Your task to perform on an android device: refresh tabs in the chrome app Image 0: 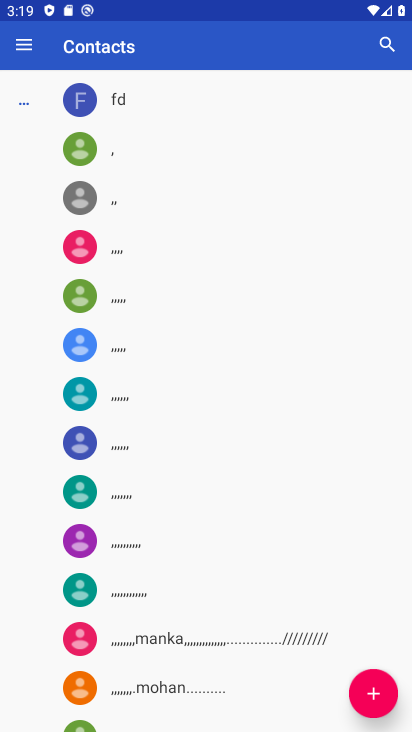
Step 0: press back button
Your task to perform on an android device: refresh tabs in the chrome app Image 1: 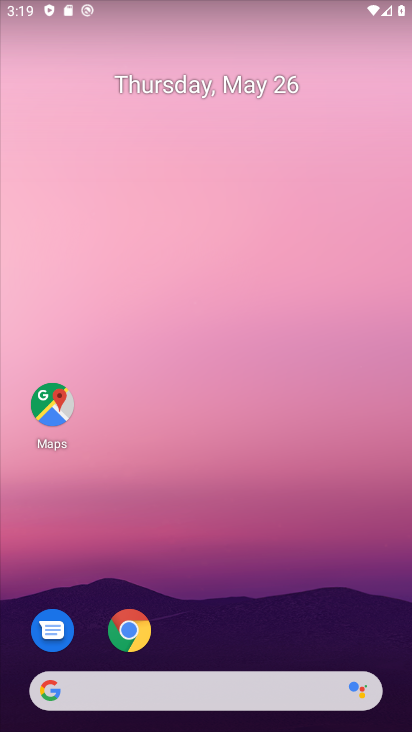
Step 1: click (130, 629)
Your task to perform on an android device: refresh tabs in the chrome app Image 2: 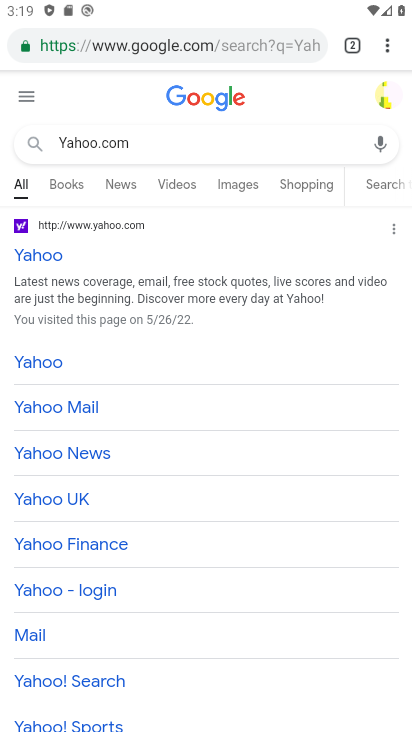
Step 2: click (387, 44)
Your task to perform on an android device: refresh tabs in the chrome app Image 3: 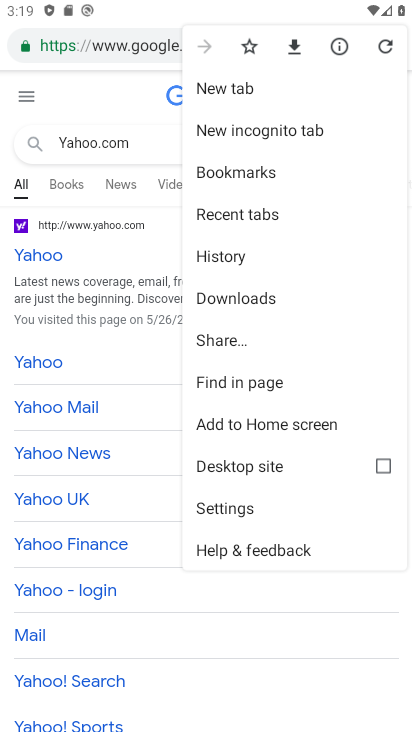
Step 3: click (387, 44)
Your task to perform on an android device: refresh tabs in the chrome app Image 4: 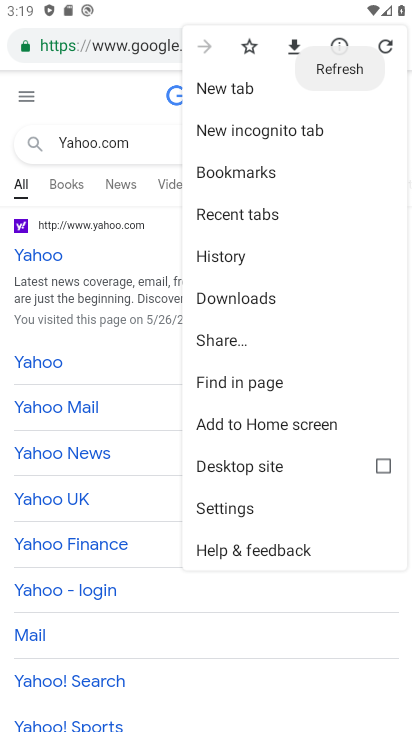
Step 4: click (387, 44)
Your task to perform on an android device: refresh tabs in the chrome app Image 5: 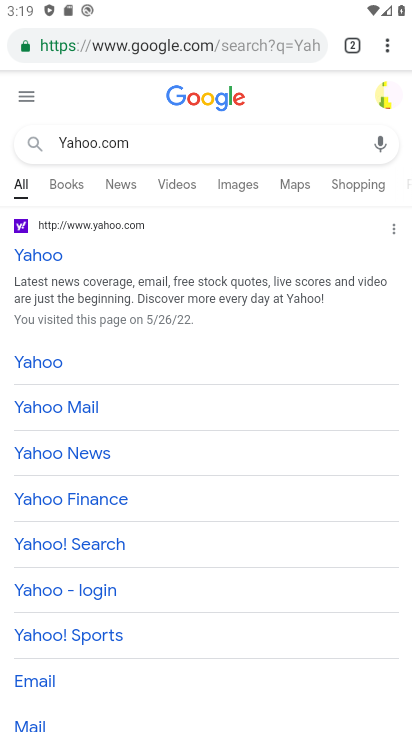
Step 5: task complete